Your task to perform on an android device: toggle priority inbox in the gmail app Image 0: 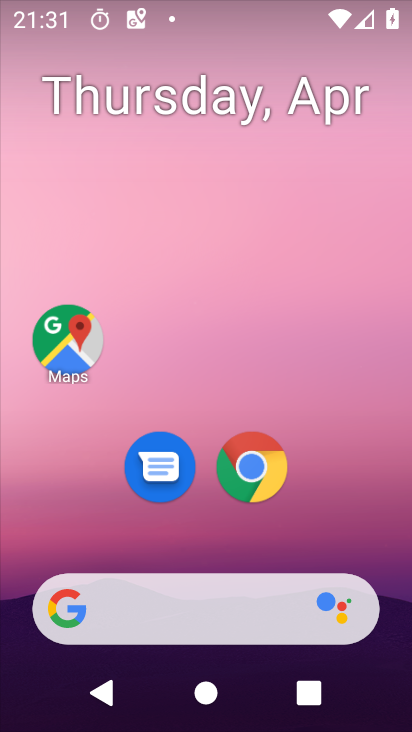
Step 0: drag from (207, 569) to (343, 11)
Your task to perform on an android device: toggle priority inbox in the gmail app Image 1: 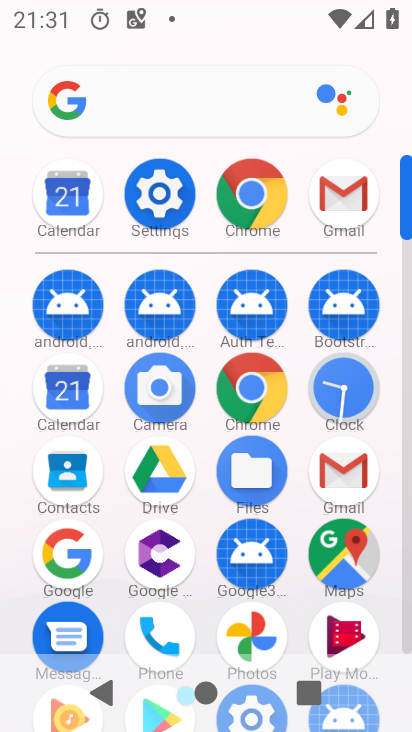
Step 1: click (338, 474)
Your task to perform on an android device: toggle priority inbox in the gmail app Image 2: 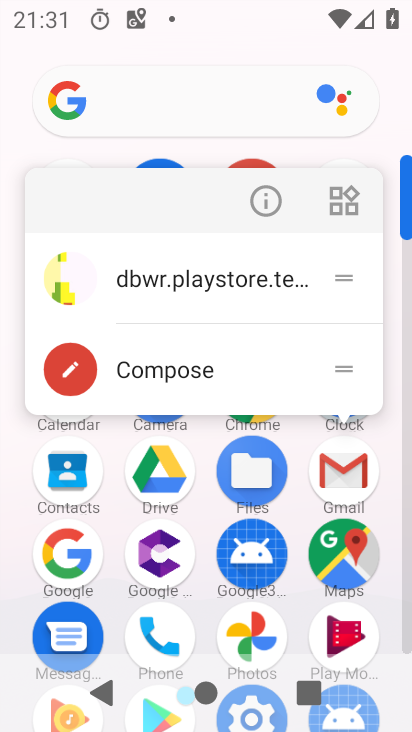
Step 2: click (343, 491)
Your task to perform on an android device: toggle priority inbox in the gmail app Image 3: 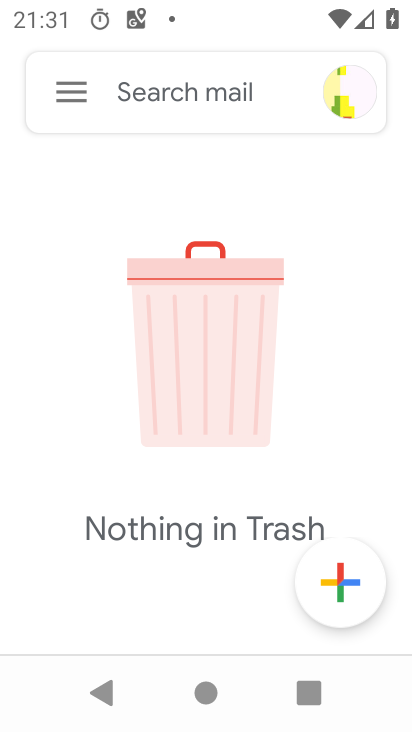
Step 3: click (57, 91)
Your task to perform on an android device: toggle priority inbox in the gmail app Image 4: 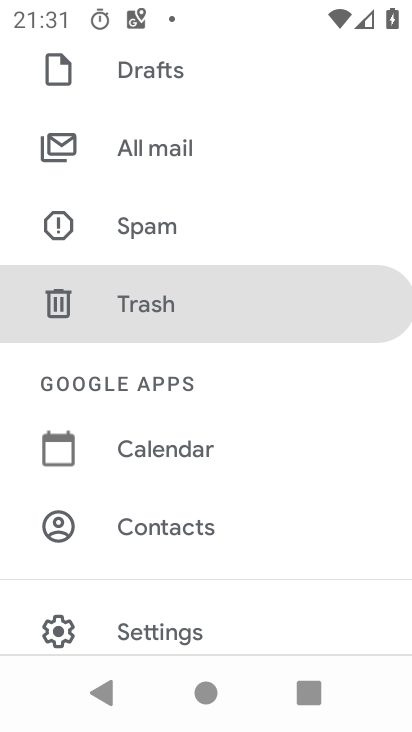
Step 4: click (138, 620)
Your task to perform on an android device: toggle priority inbox in the gmail app Image 5: 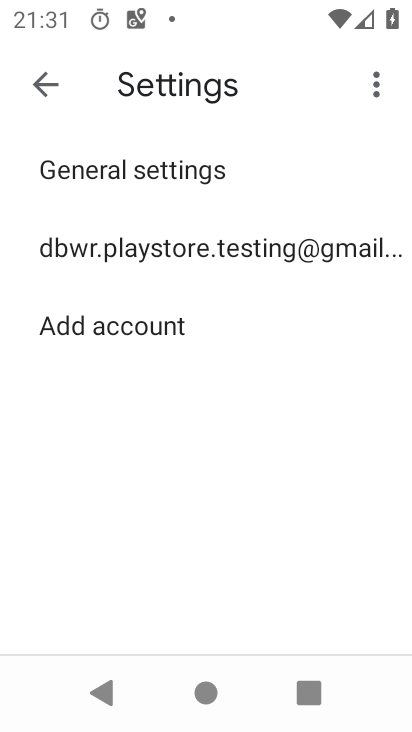
Step 5: click (146, 264)
Your task to perform on an android device: toggle priority inbox in the gmail app Image 6: 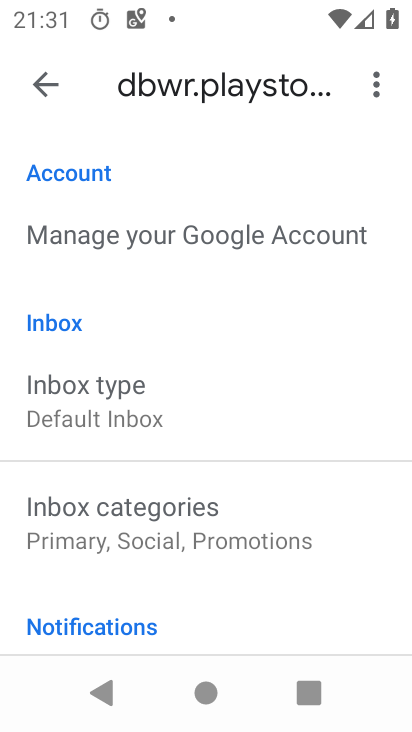
Step 6: click (95, 406)
Your task to perform on an android device: toggle priority inbox in the gmail app Image 7: 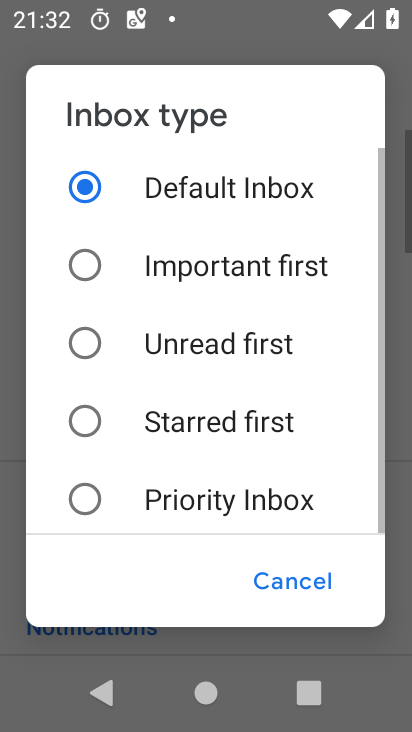
Step 7: click (154, 477)
Your task to perform on an android device: toggle priority inbox in the gmail app Image 8: 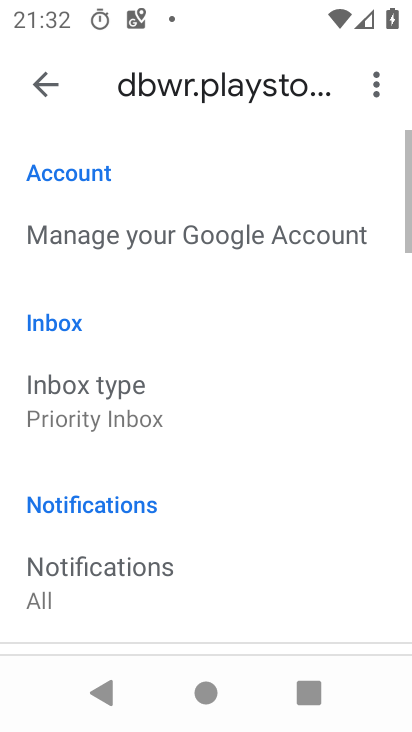
Step 8: task complete